Your task to perform on an android device: Set the phone to "Do not disturb". Image 0: 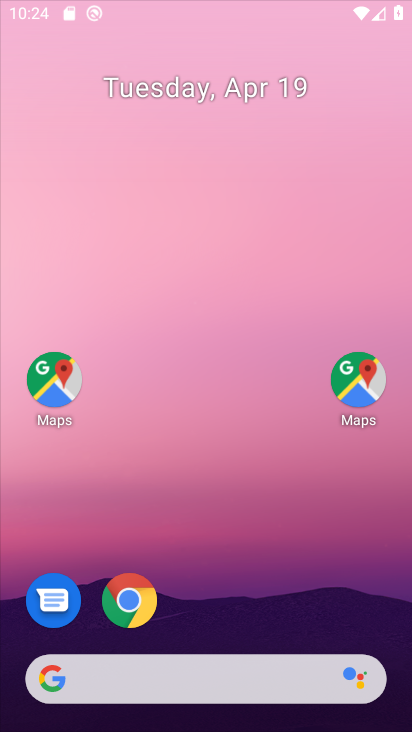
Step 0: drag from (332, 602) to (342, 11)
Your task to perform on an android device: Set the phone to "Do not disturb". Image 1: 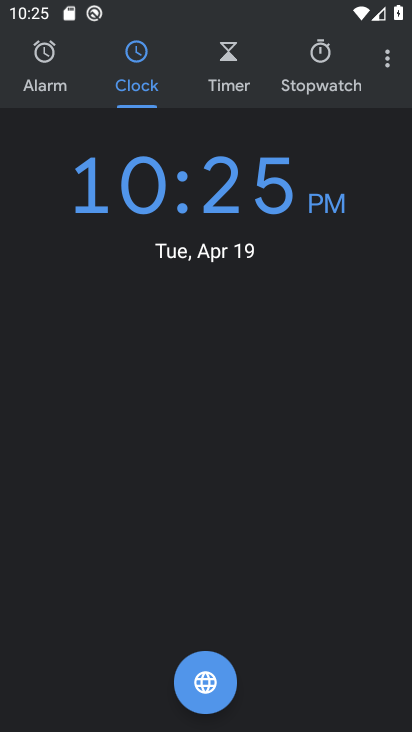
Step 1: press home button
Your task to perform on an android device: Set the phone to "Do not disturb". Image 2: 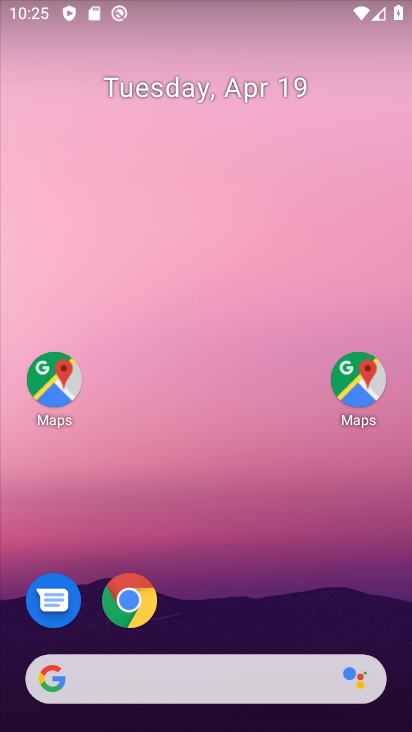
Step 2: drag from (226, 610) to (178, 4)
Your task to perform on an android device: Set the phone to "Do not disturb". Image 3: 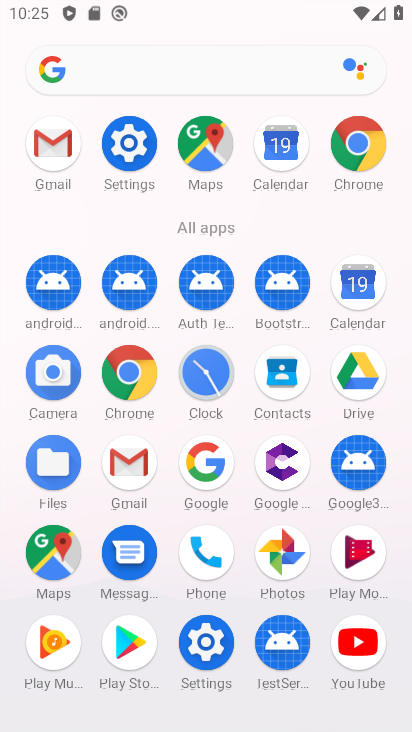
Step 3: click (214, 645)
Your task to perform on an android device: Set the phone to "Do not disturb". Image 4: 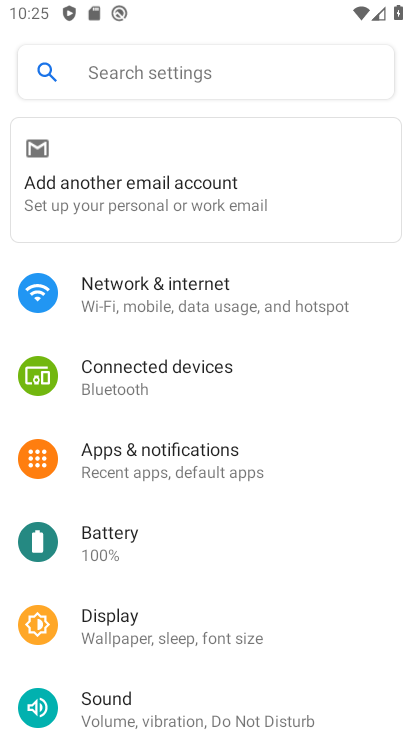
Step 4: drag from (196, 636) to (157, 115)
Your task to perform on an android device: Set the phone to "Do not disturb". Image 5: 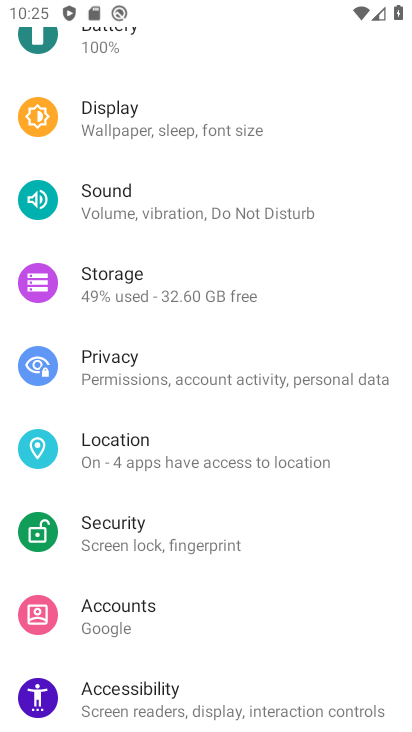
Step 5: click (168, 192)
Your task to perform on an android device: Set the phone to "Do not disturb". Image 6: 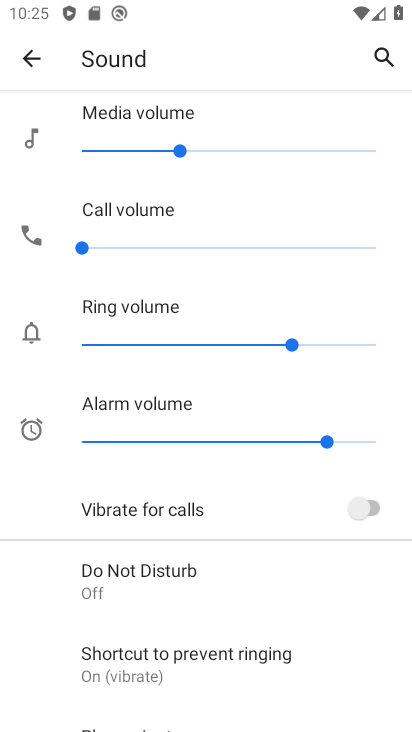
Step 6: click (191, 585)
Your task to perform on an android device: Set the phone to "Do not disturb". Image 7: 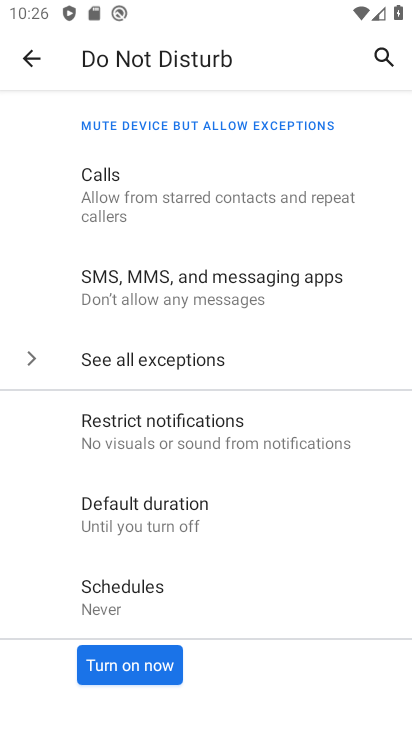
Step 7: drag from (16, 569) to (383, 531)
Your task to perform on an android device: Set the phone to "Do not disturb". Image 8: 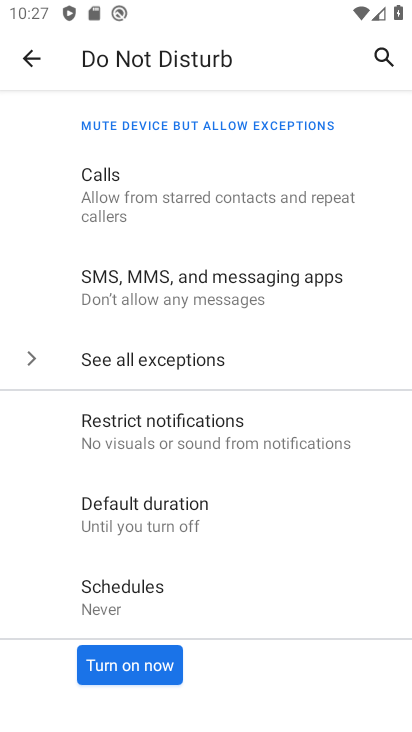
Step 8: click (141, 662)
Your task to perform on an android device: Set the phone to "Do not disturb". Image 9: 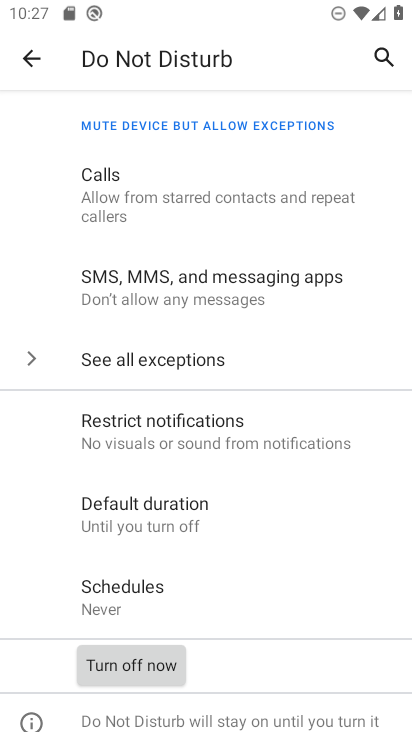
Step 9: task complete